Your task to perform on an android device: Open the Play Movies app and select the watchlist tab. Image 0: 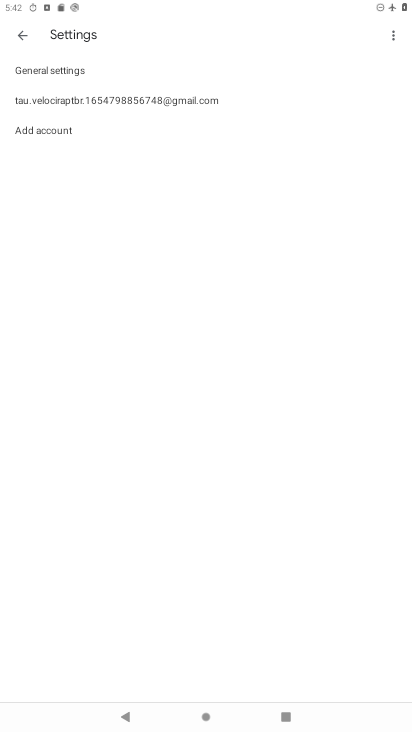
Step 0: press home button
Your task to perform on an android device: Open the Play Movies app and select the watchlist tab. Image 1: 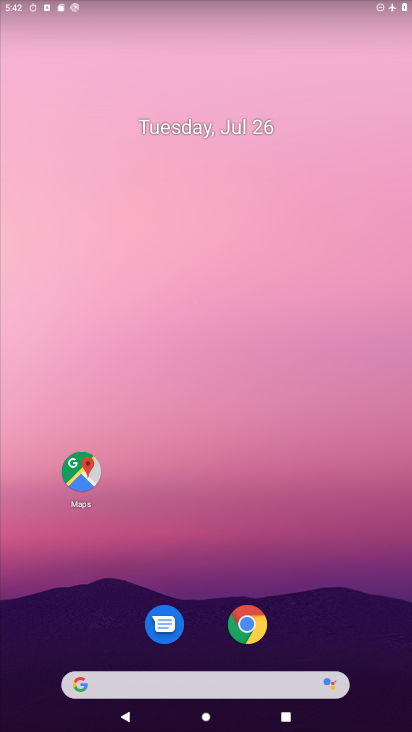
Step 1: drag from (196, 686) to (258, 133)
Your task to perform on an android device: Open the Play Movies app and select the watchlist tab. Image 2: 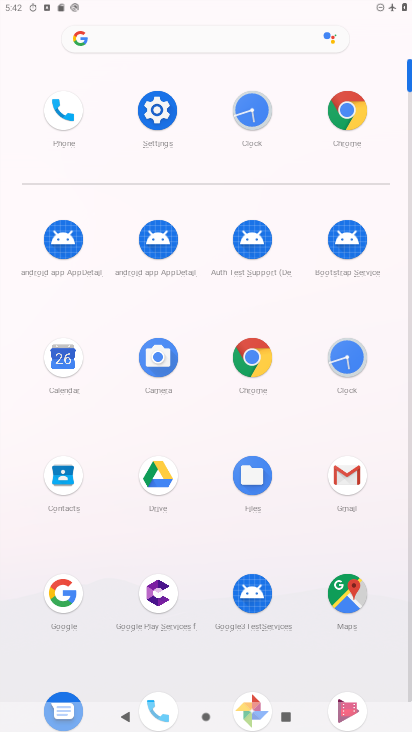
Step 2: drag from (209, 653) to (211, 454)
Your task to perform on an android device: Open the Play Movies app and select the watchlist tab. Image 3: 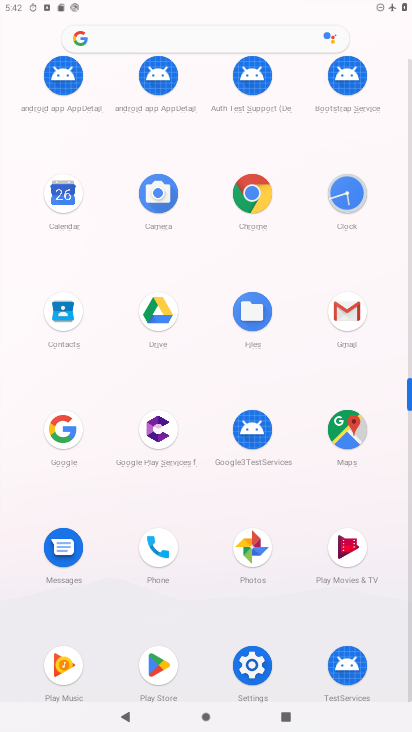
Step 3: click (332, 542)
Your task to perform on an android device: Open the Play Movies app and select the watchlist tab. Image 4: 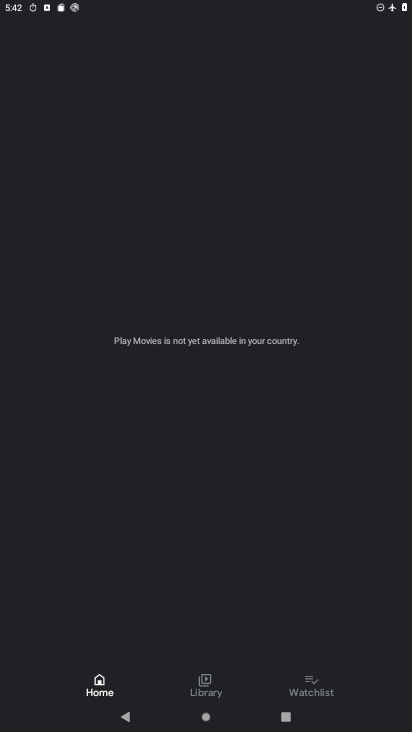
Step 4: click (321, 685)
Your task to perform on an android device: Open the Play Movies app and select the watchlist tab. Image 5: 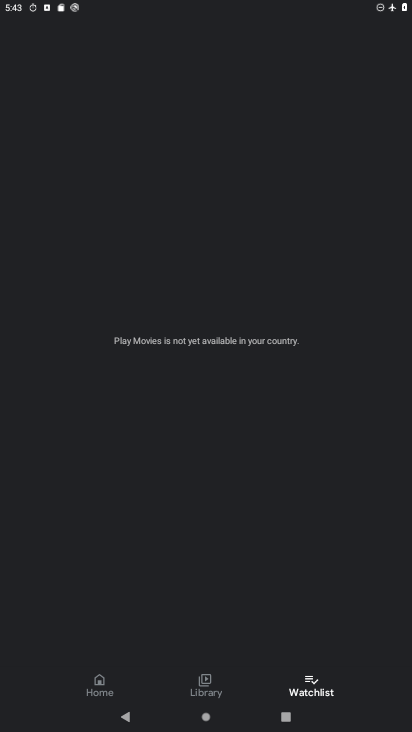
Step 5: task complete